Your task to perform on an android device: change the clock display to show seconds Image 0: 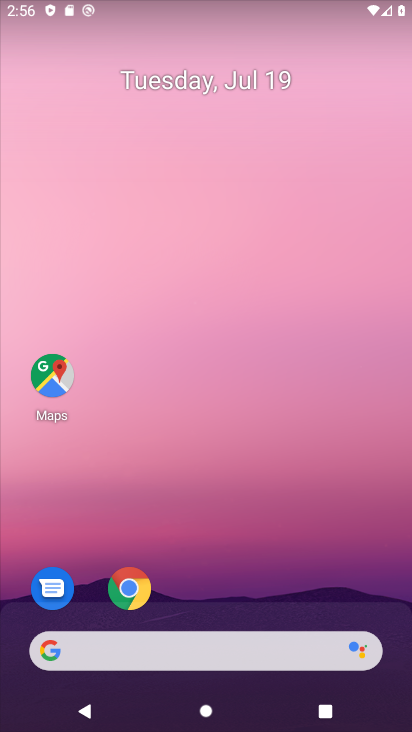
Step 0: drag from (235, 595) to (235, 105)
Your task to perform on an android device: change the clock display to show seconds Image 1: 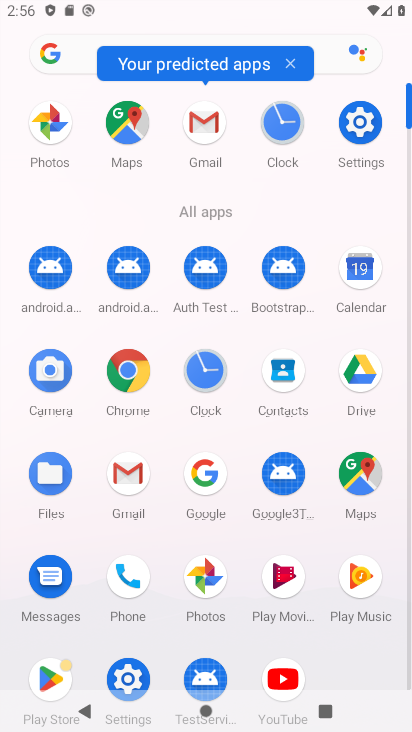
Step 1: click (278, 122)
Your task to perform on an android device: change the clock display to show seconds Image 2: 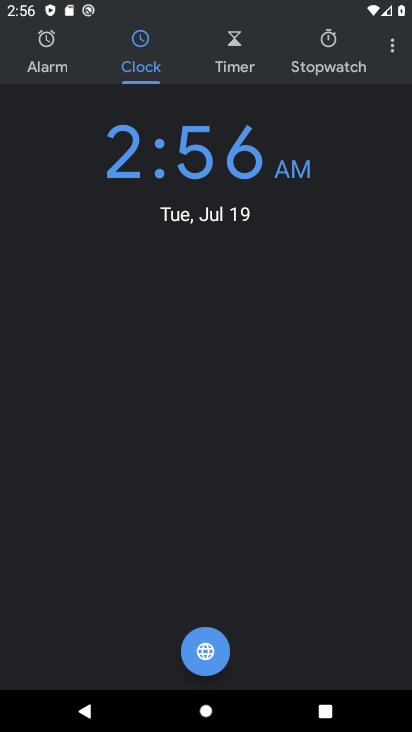
Step 2: click (393, 41)
Your task to perform on an android device: change the clock display to show seconds Image 3: 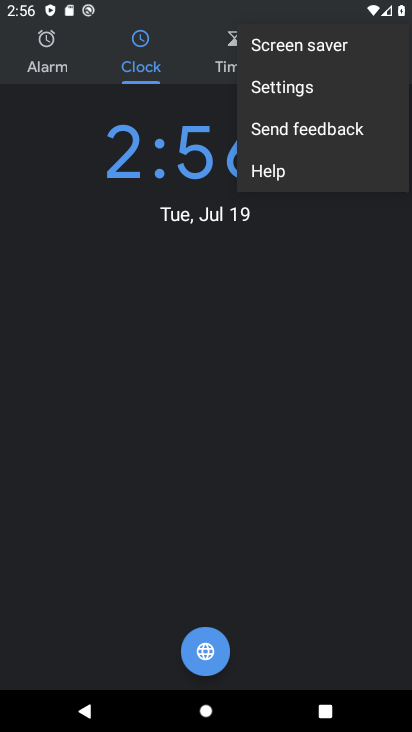
Step 3: click (286, 95)
Your task to perform on an android device: change the clock display to show seconds Image 4: 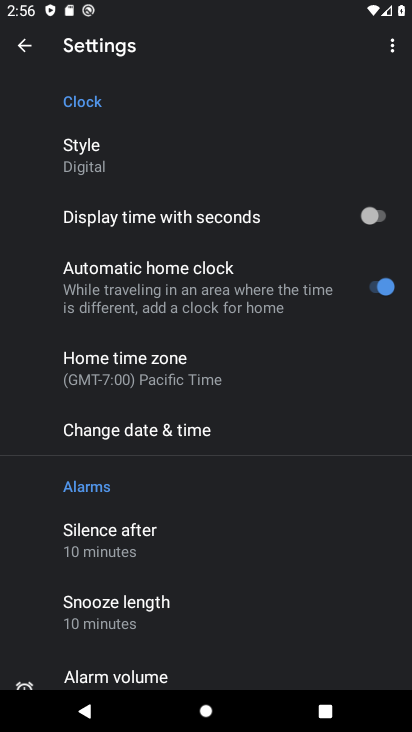
Step 4: click (368, 218)
Your task to perform on an android device: change the clock display to show seconds Image 5: 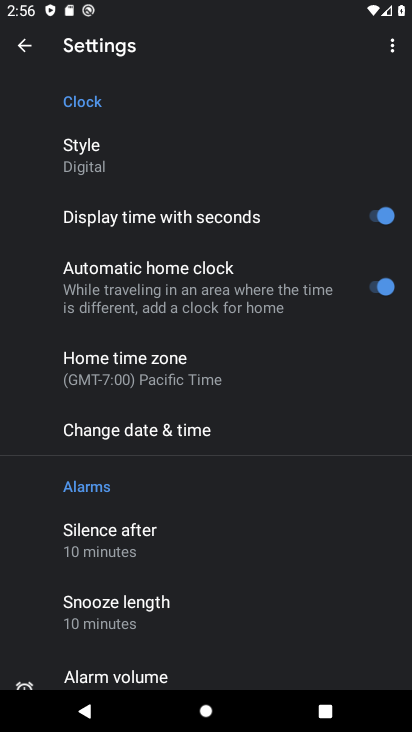
Step 5: task complete